Your task to perform on an android device: Add "panasonic triple a" to the cart on amazon, then select checkout. Image 0: 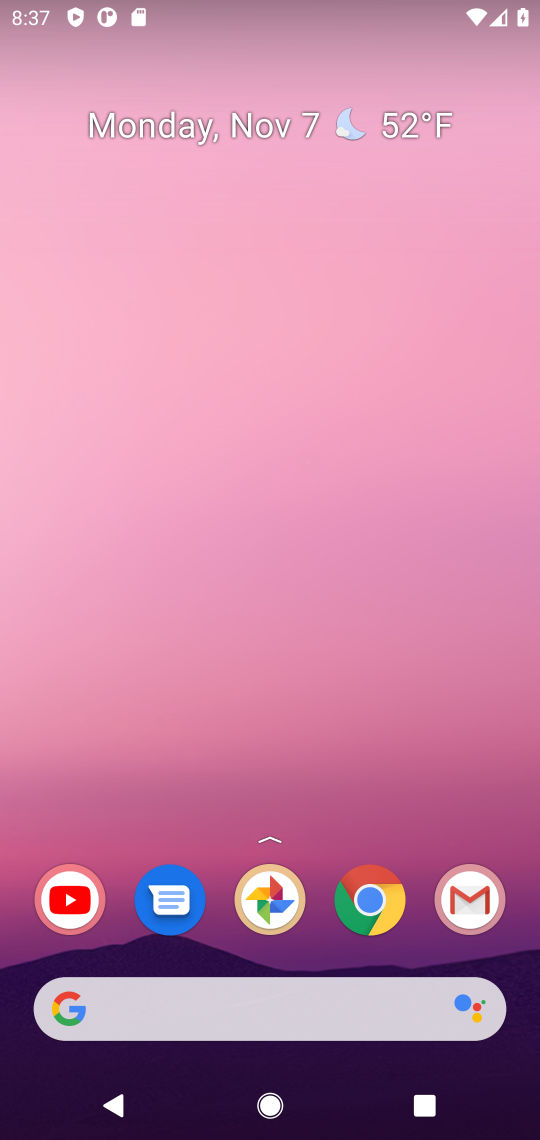
Step 0: click (349, 997)
Your task to perform on an android device: Add "panasonic triple a" to the cart on amazon, then select checkout. Image 1: 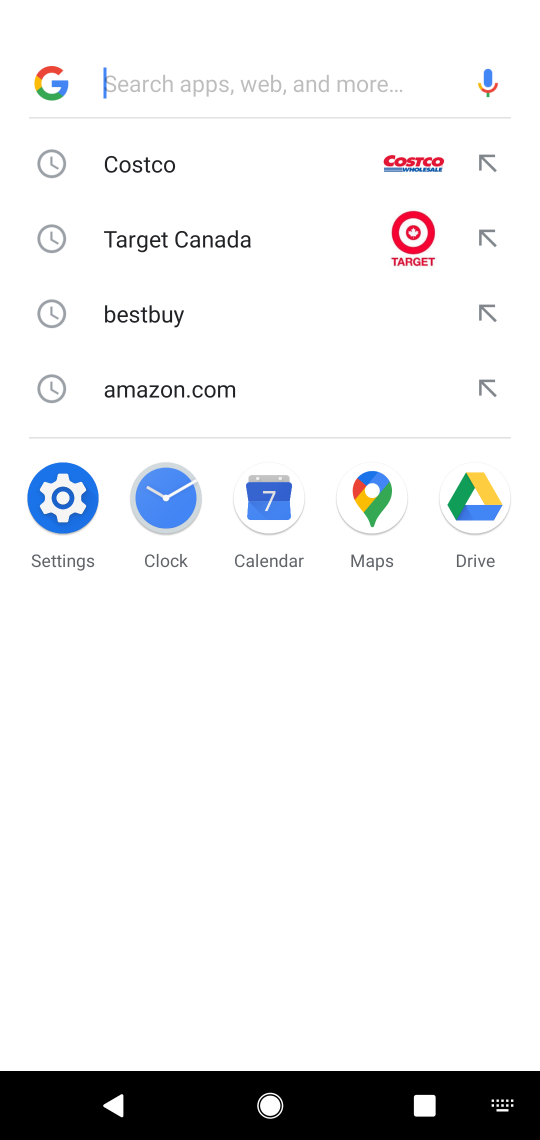
Step 1: click (240, 414)
Your task to perform on an android device: Add "panasonic triple a" to the cart on amazon, then select checkout. Image 2: 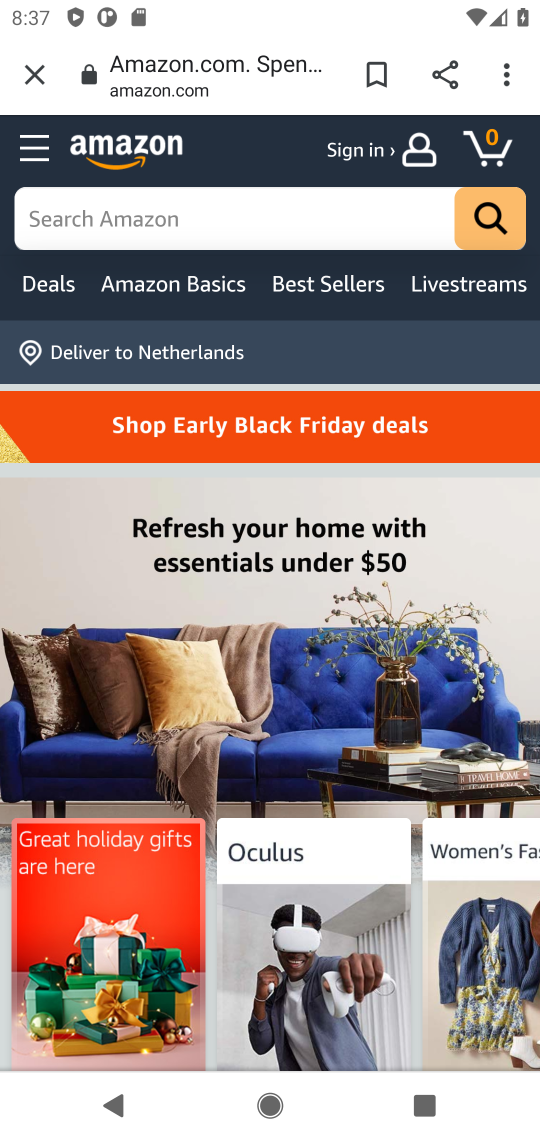
Step 2: click (141, 216)
Your task to perform on an android device: Add "panasonic triple a" to the cart on amazon, then select checkout. Image 3: 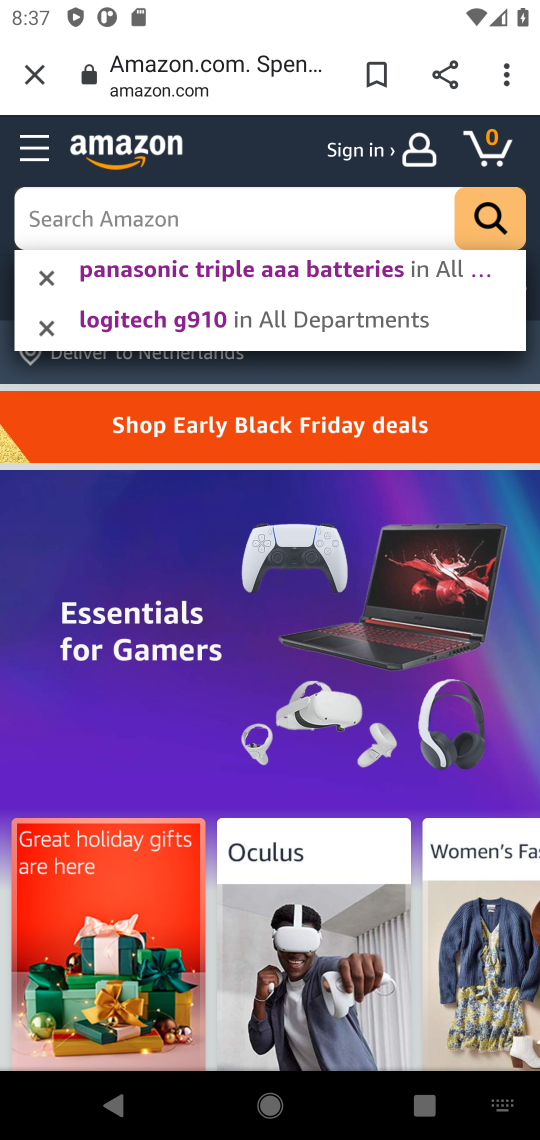
Step 3: type "pansonic "
Your task to perform on an android device: Add "panasonic triple a" to the cart on amazon, then select checkout. Image 4: 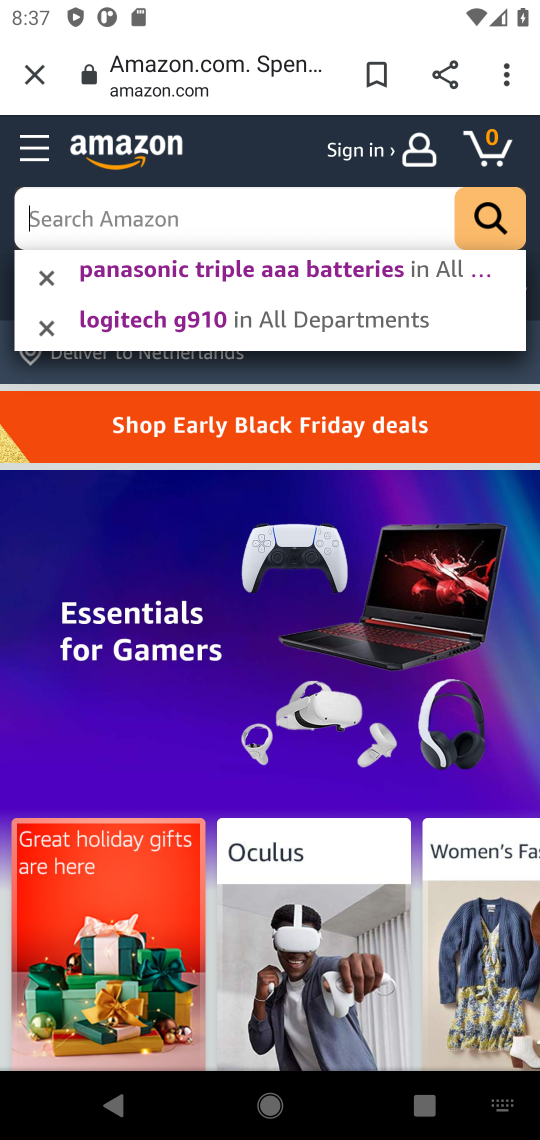
Step 4: click (249, 278)
Your task to perform on an android device: Add "panasonic triple a" to the cart on amazon, then select checkout. Image 5: 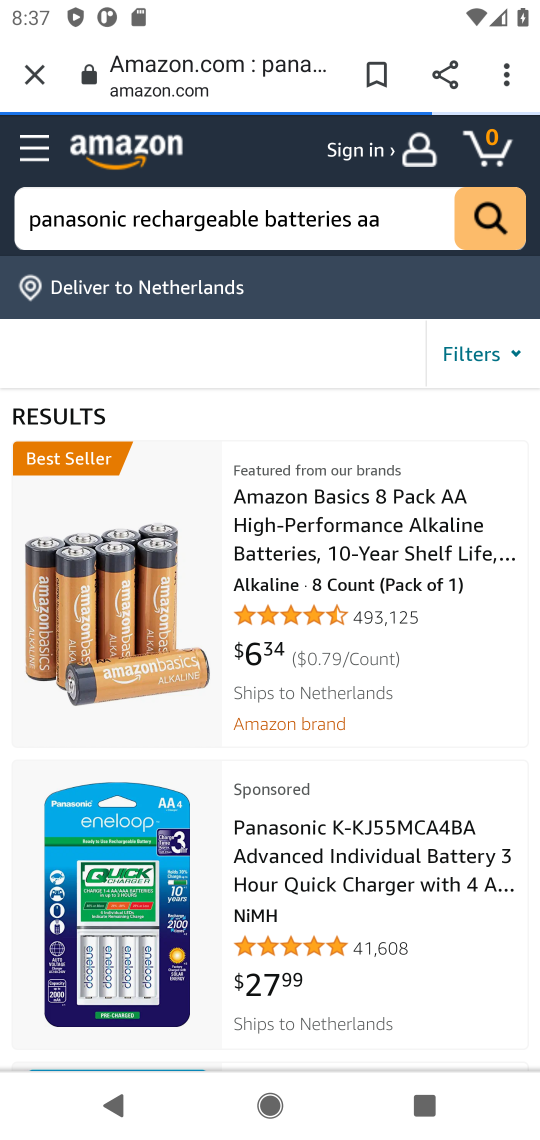
Step 5: click (376, 556)
Your task to perform on an android device: Add "panasonic triple a" to the cart on amazon, then select checkout. Image 6: 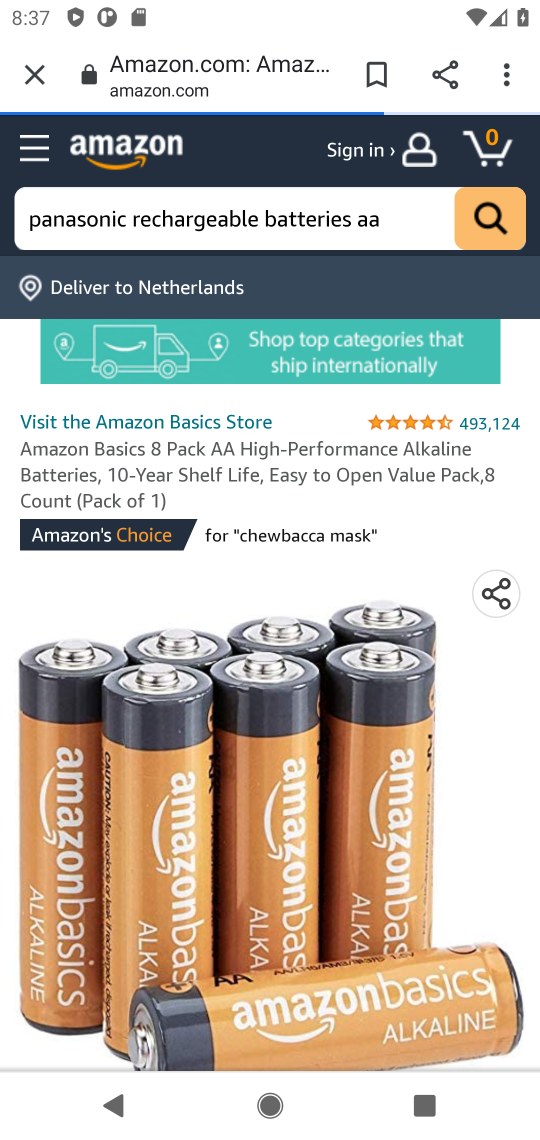
Step 6: drag from (343, 923) to (458, 238)
Your task to perform on an android device: Add "panasonic triple a" to the cart on amazon, then select checkout. Image 7: 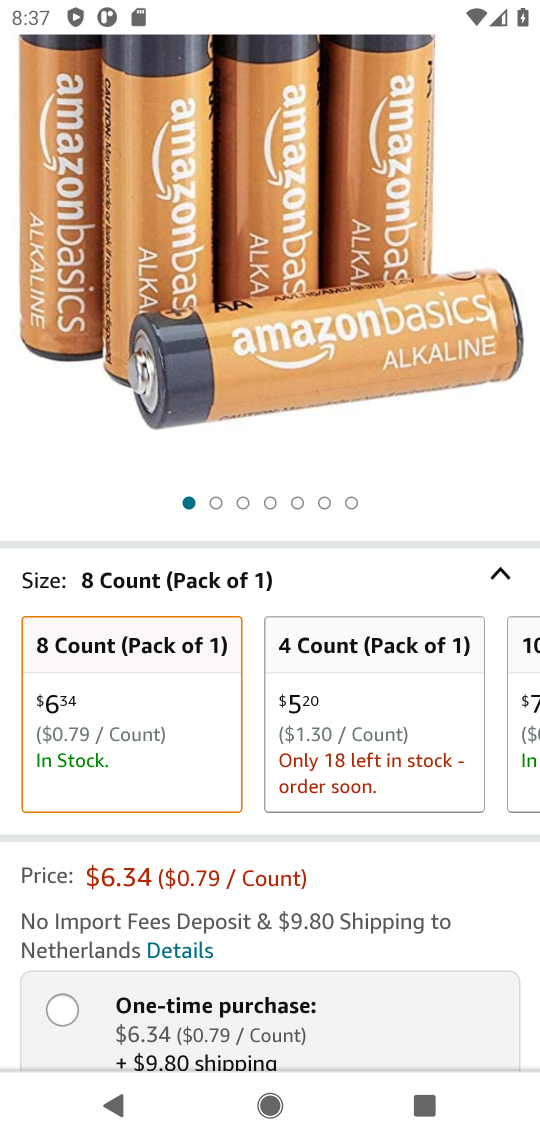
Step 7: drag from (400, 848) to (422, 166)
Your task to perform on an android device: Add "panasonic triple a" to the cart on amazon, then select checkout. Image 8: 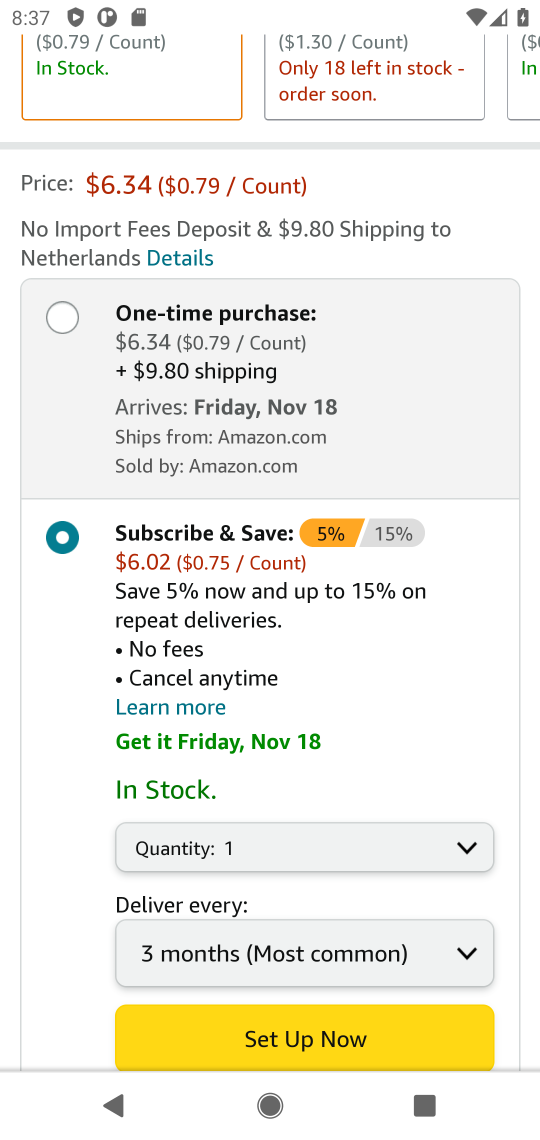
Step 8: click (345, 1066)
Your task to perform on an android device: Add "panasonic triple a" to the cart on amazon, then select checkout. Image 9: 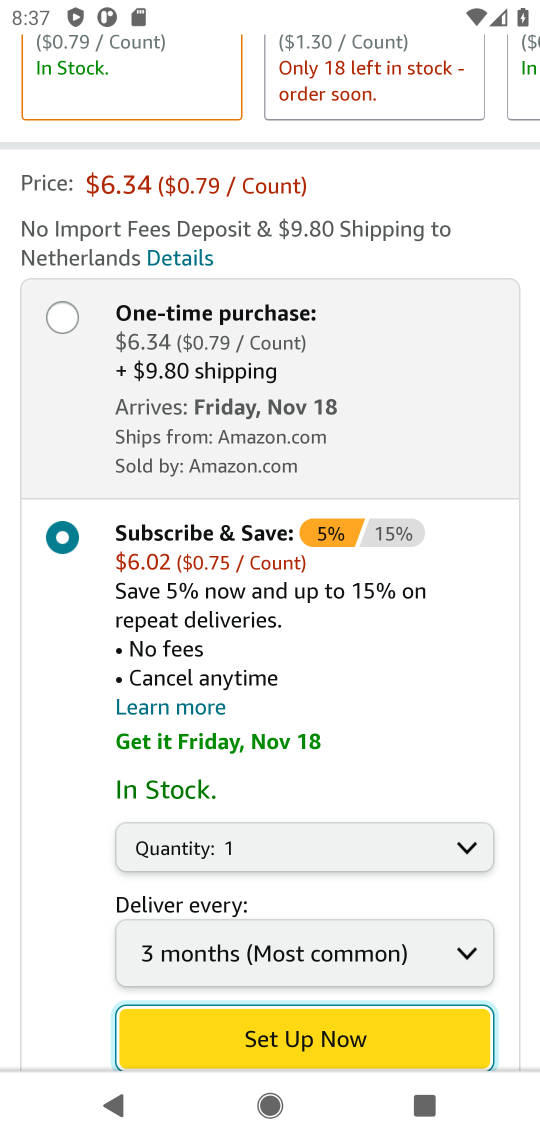
Step 9: task complete